Your task to perform on an android device: Open the stopwatch Image 0: 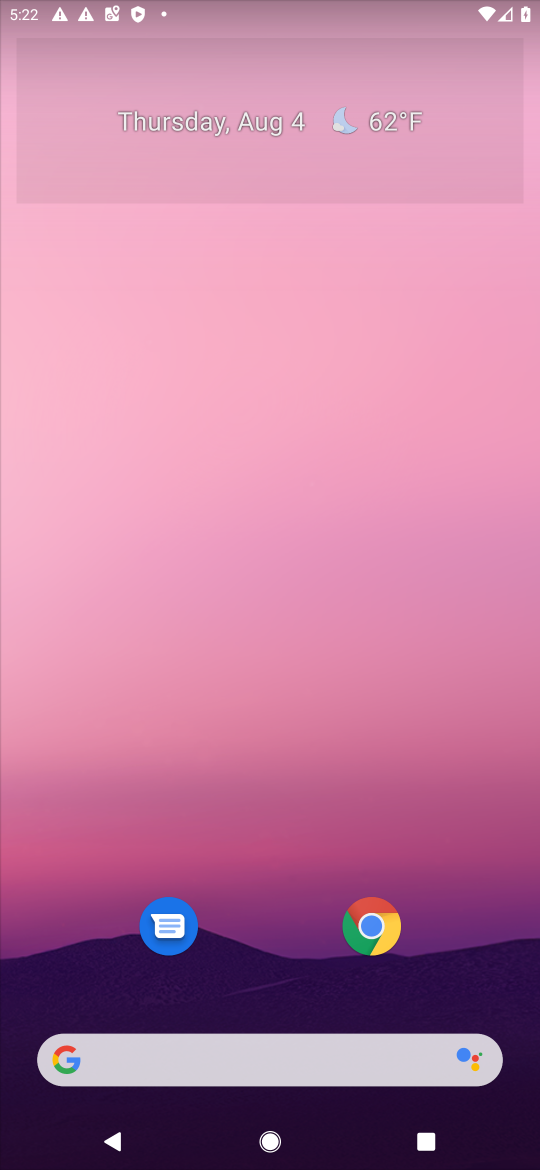
Step 0: press home button
Your task to perform on an android device: Open the stopwatch Image 1: 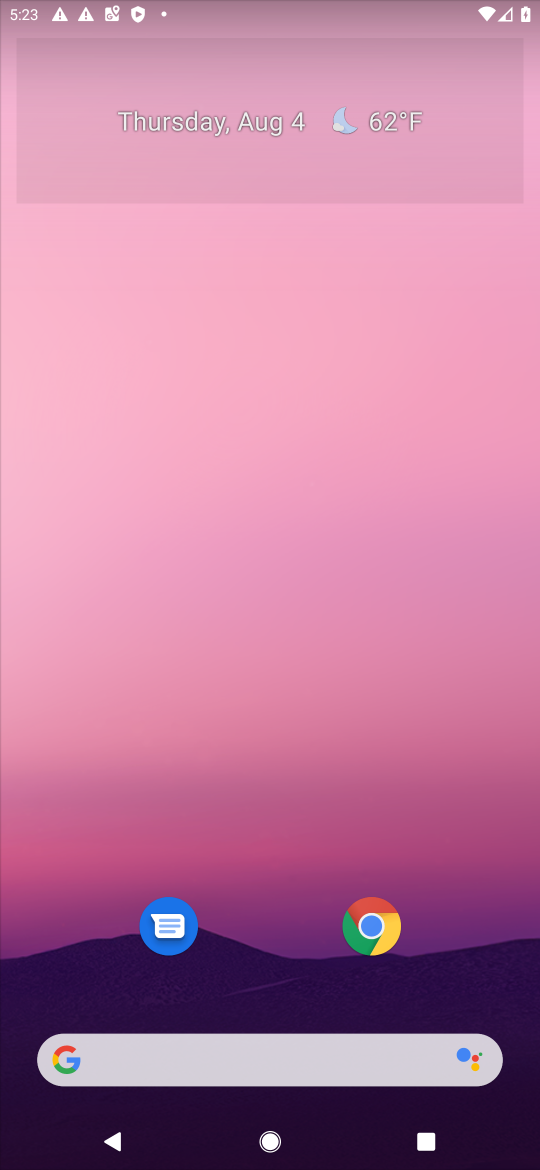
Step 1: drag from (272, 1003) to (333, 211)
Your task to perform on an android device: Open the stopwatch Image 2: 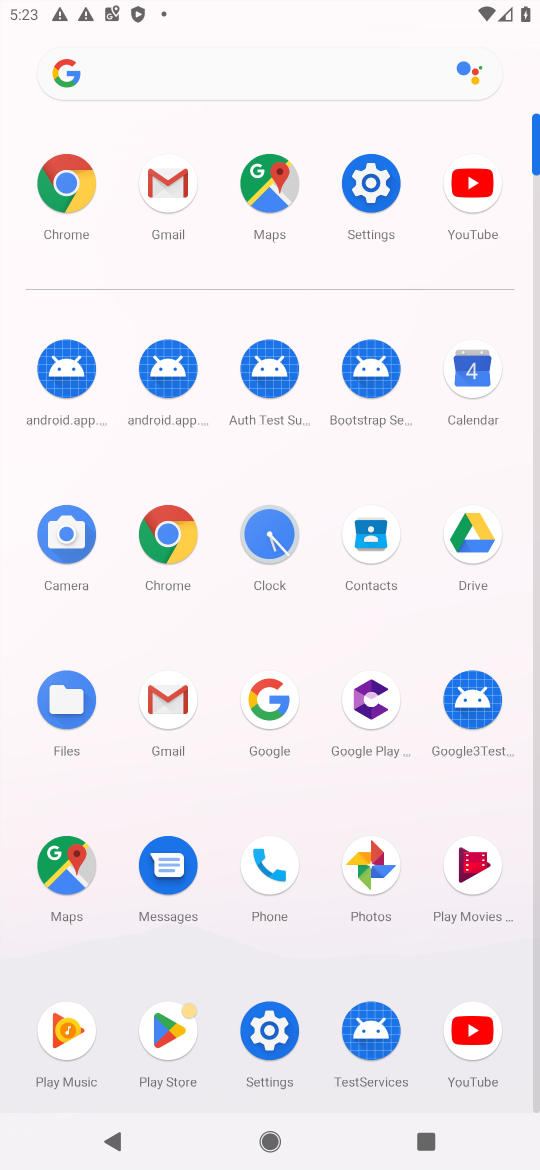
Step 2: click (264, 536)
Your task to perform on an android device: Open the stopwatch Image 3: 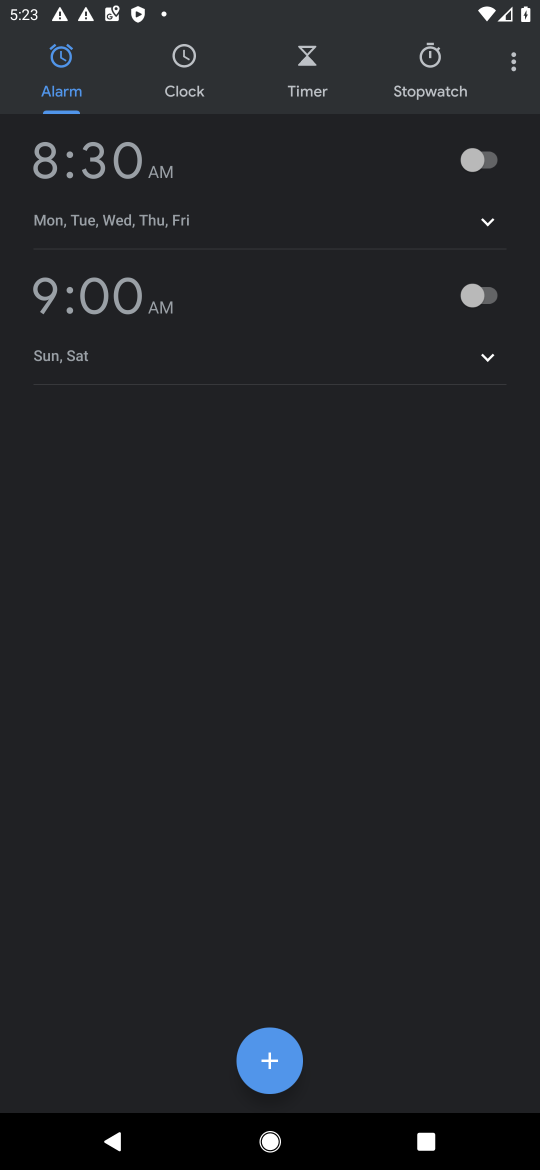
Step 3: click (442, 59)
Your task to perform on an android device: Open the stopwatch Image 4: 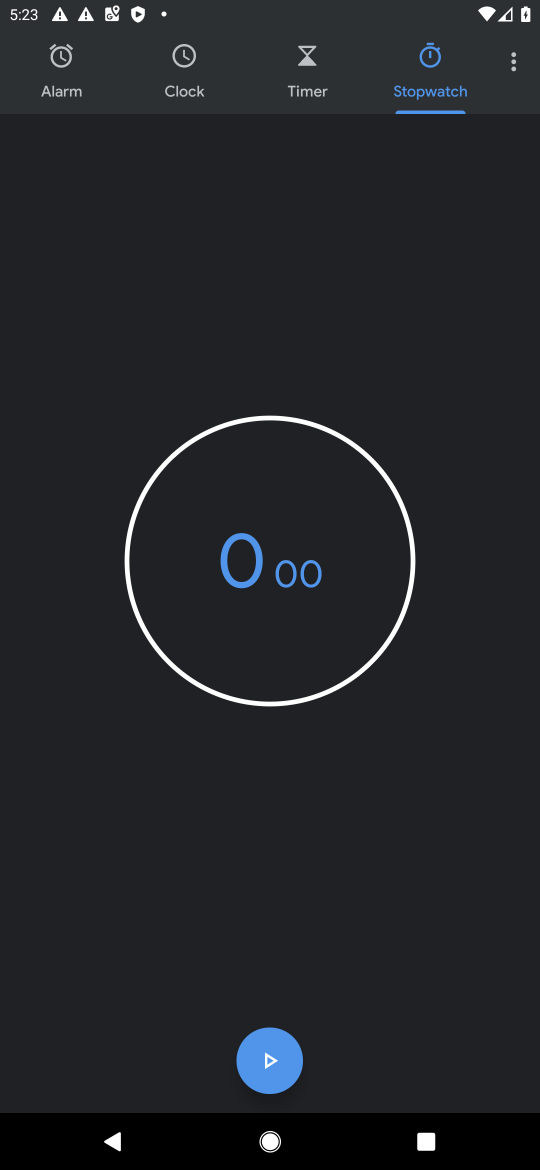
Step 4: task complete